Your task to perform on an android device: Go to eBay Image 0: 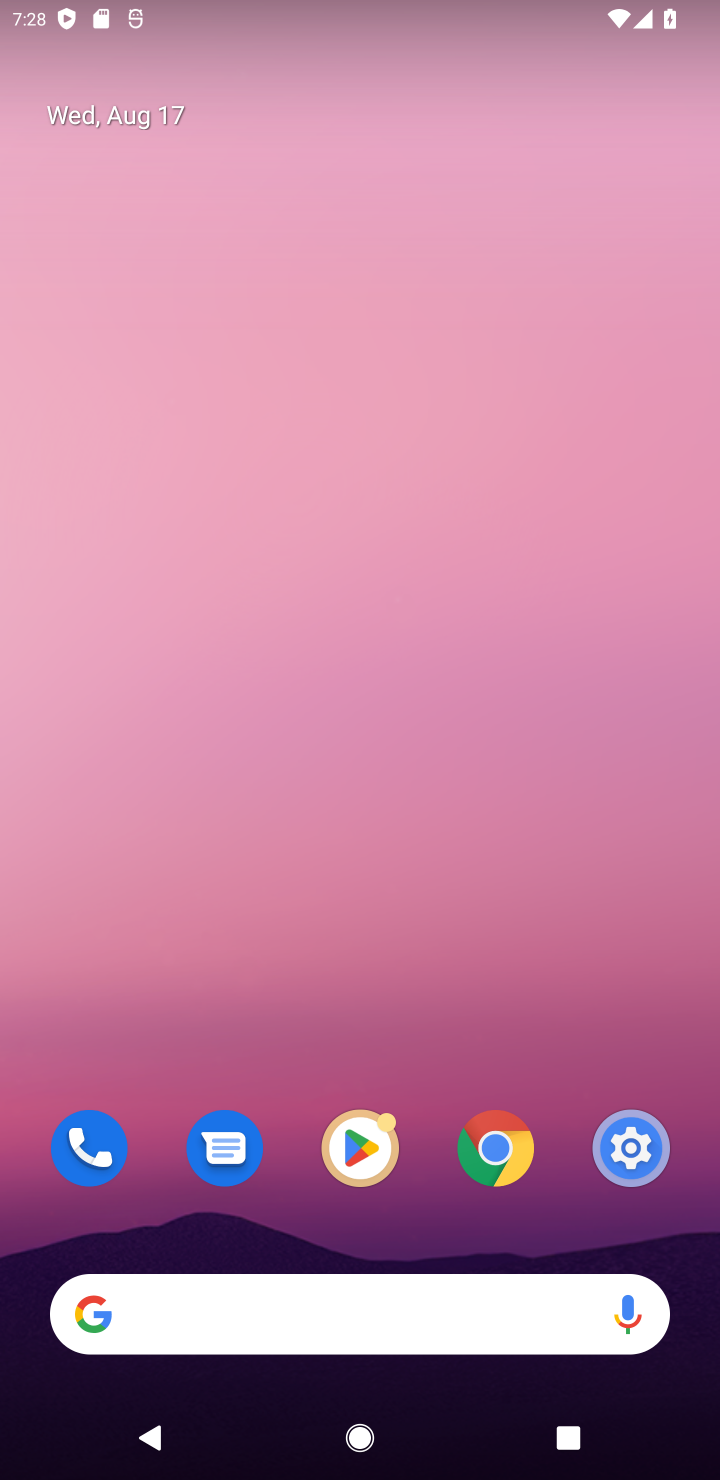
Step 0: drag from (339, 688) to (366, 417)
Your task to perform on an android device: Go to eBay Image 1: 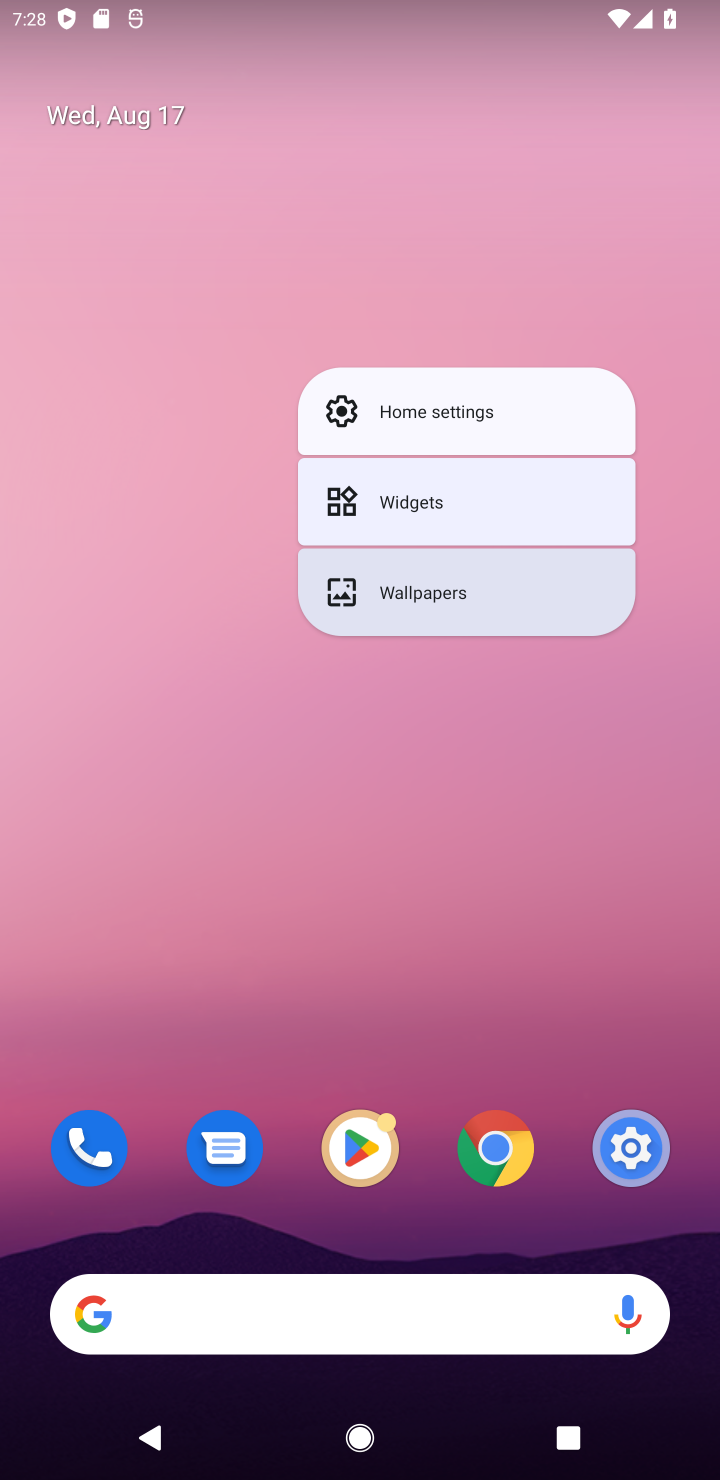
Step 1: drag from (400, 1202) to (282, 340)
Your task to perform on an android device: Go to eBay Image 2: 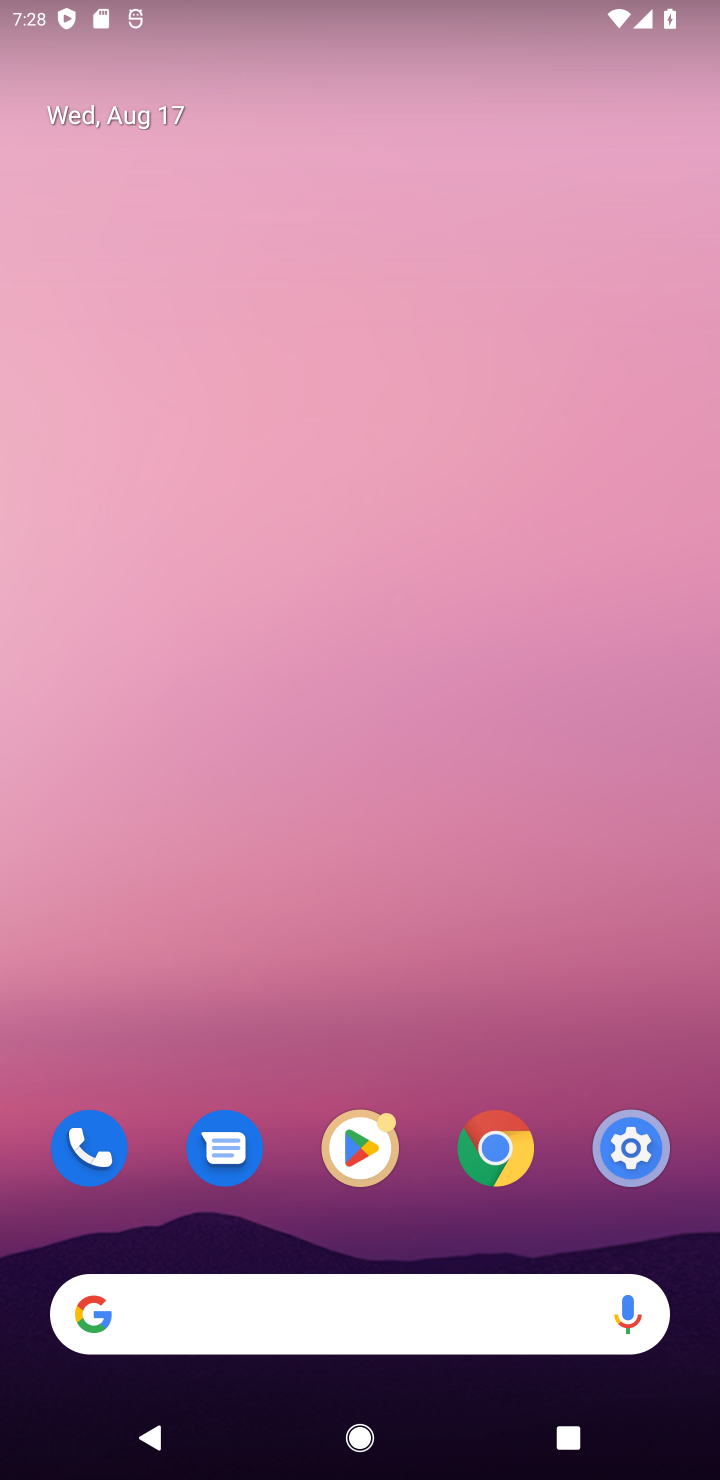
Step 2: drag from (329, 1178) to (354, 173)
Your task to perform on an android device: Go to eBay Image 3: 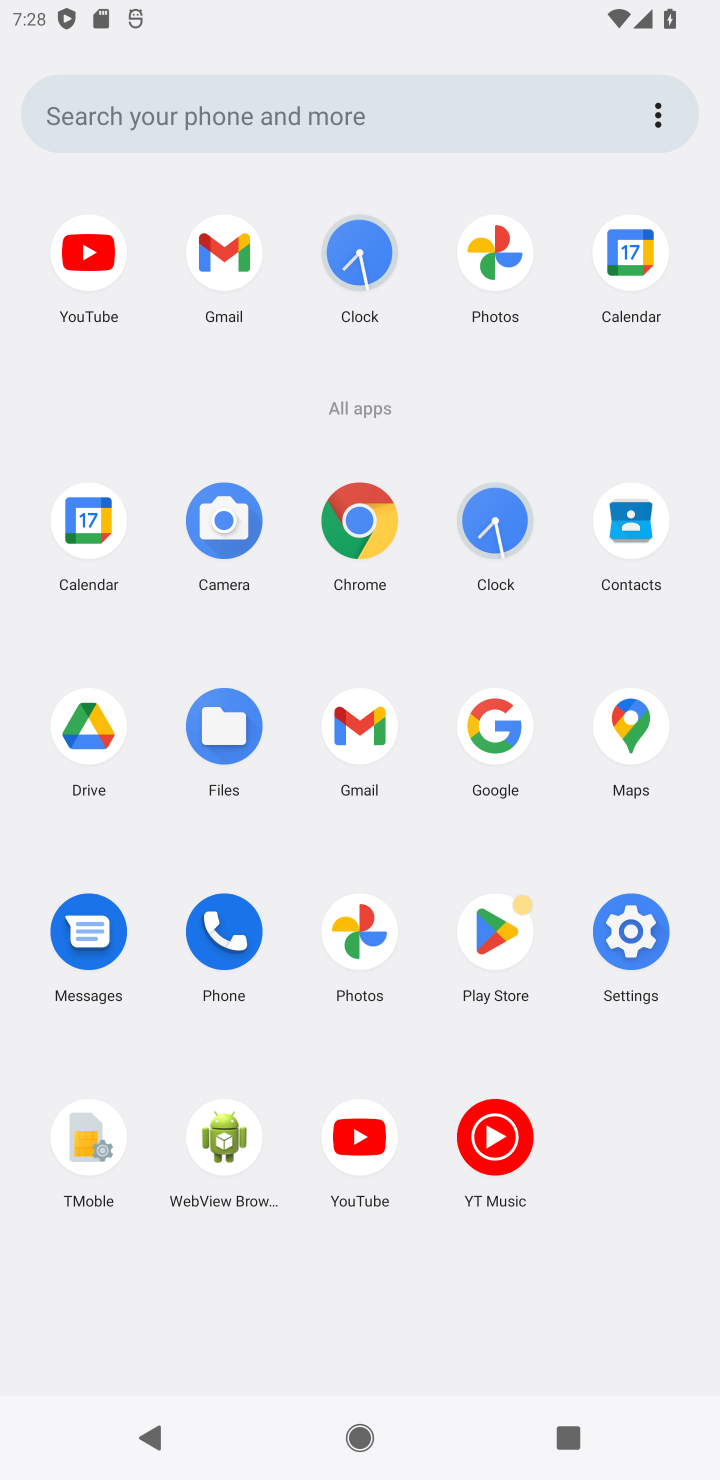
Step 3: click (496, 729)
Your task to perform on an android device: Go to eBay Image 4: 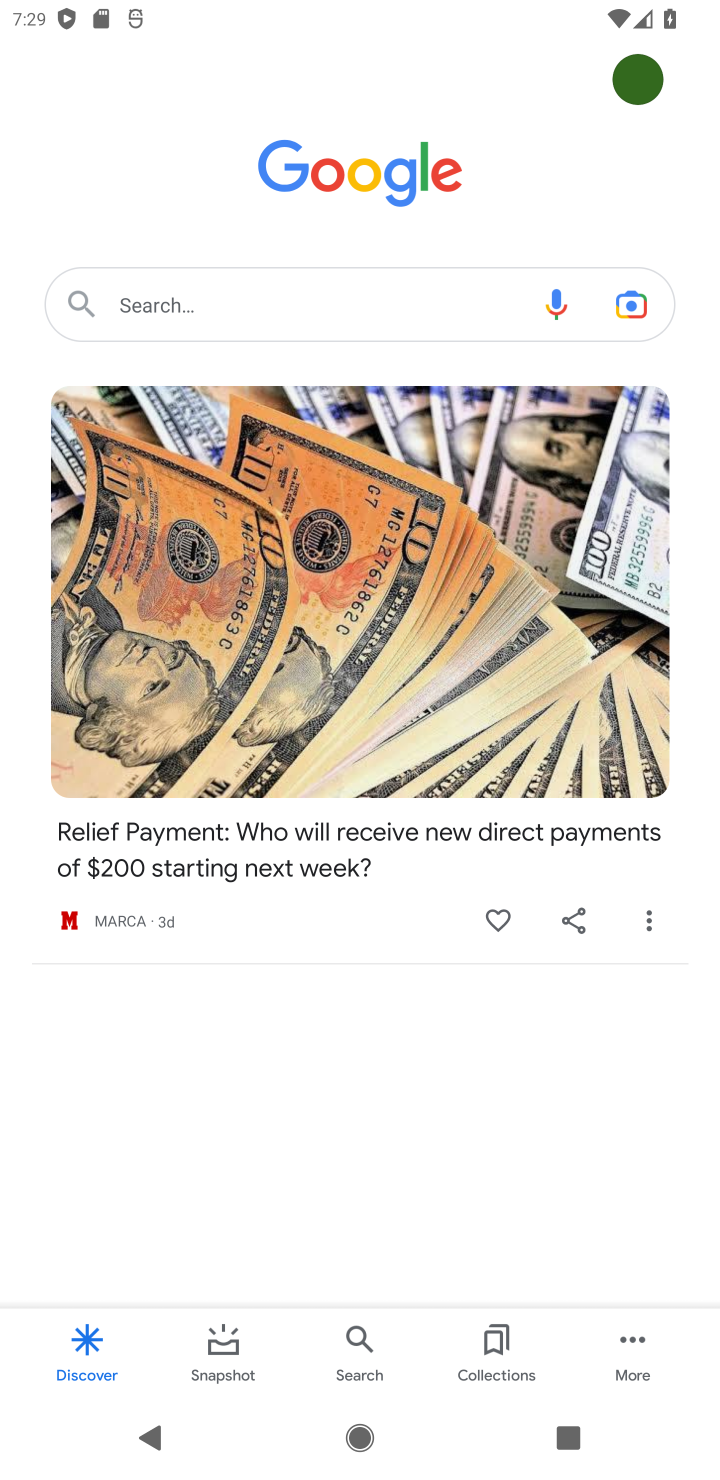
Step 4: click (261, 302)
Your task to perform on an android device: Go to eBay Image 5: 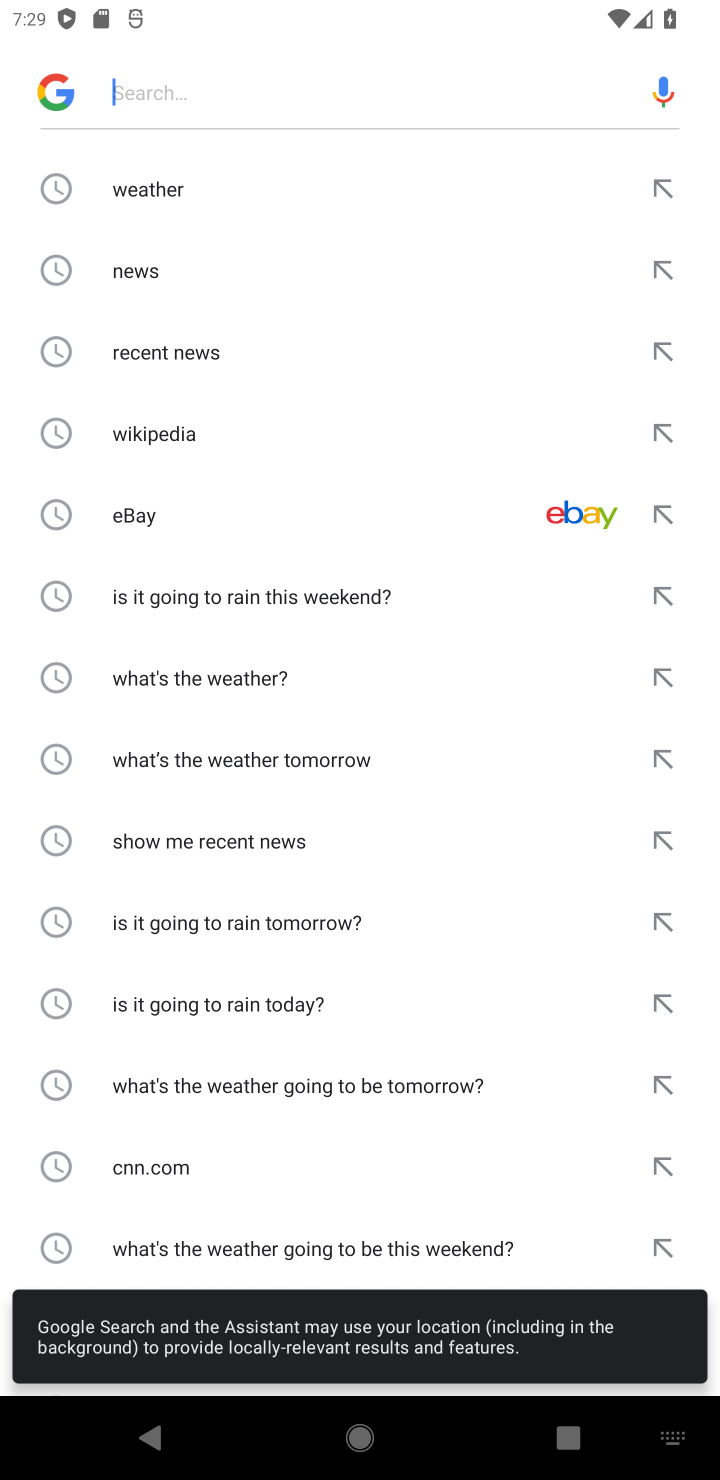
Step 5: click (144, 511)
Your task to perform on an android device: Go to eBay Image 6: 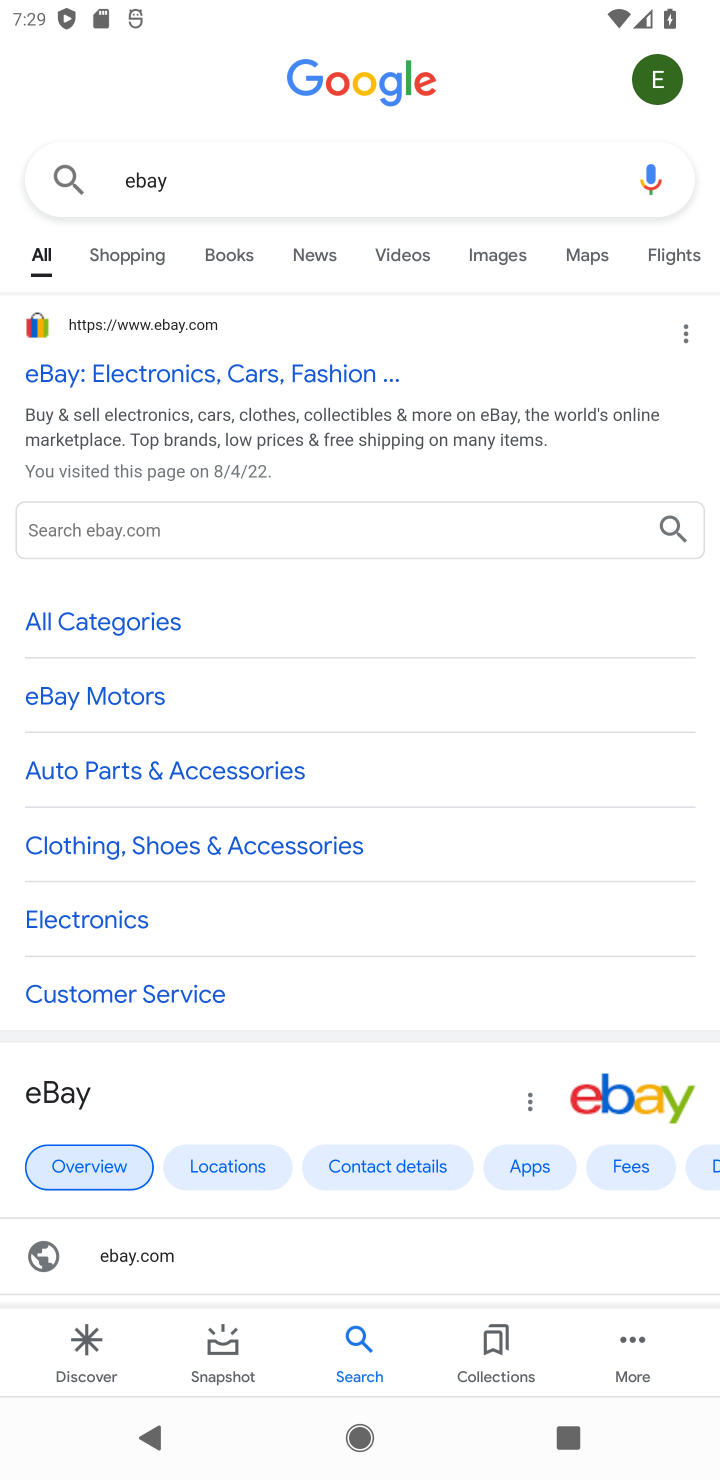
Step 6: click (290, 372)
Your task to perform on an android device: Go to eBay Image 7: 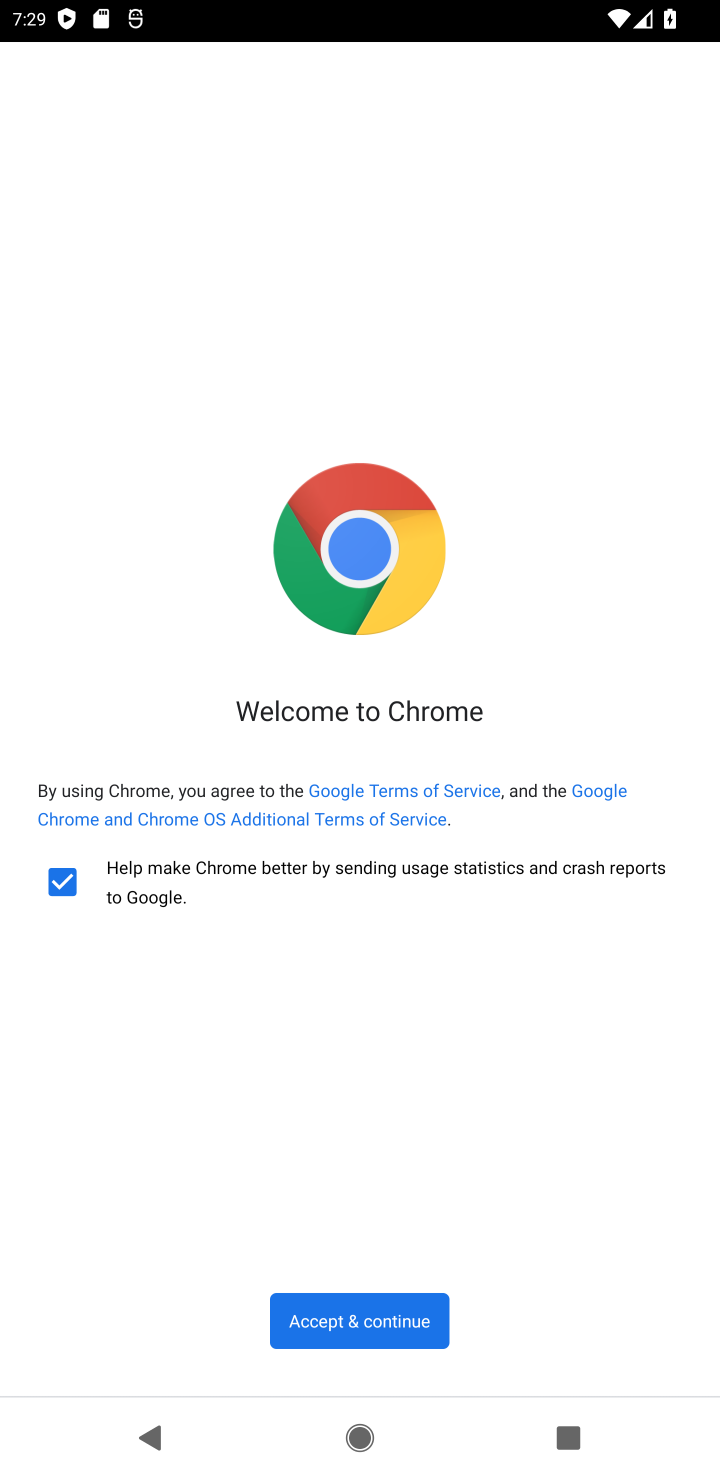
Step 7: click (328, 1319)
Your task to perform on an android device: Go to eBay Image 8: 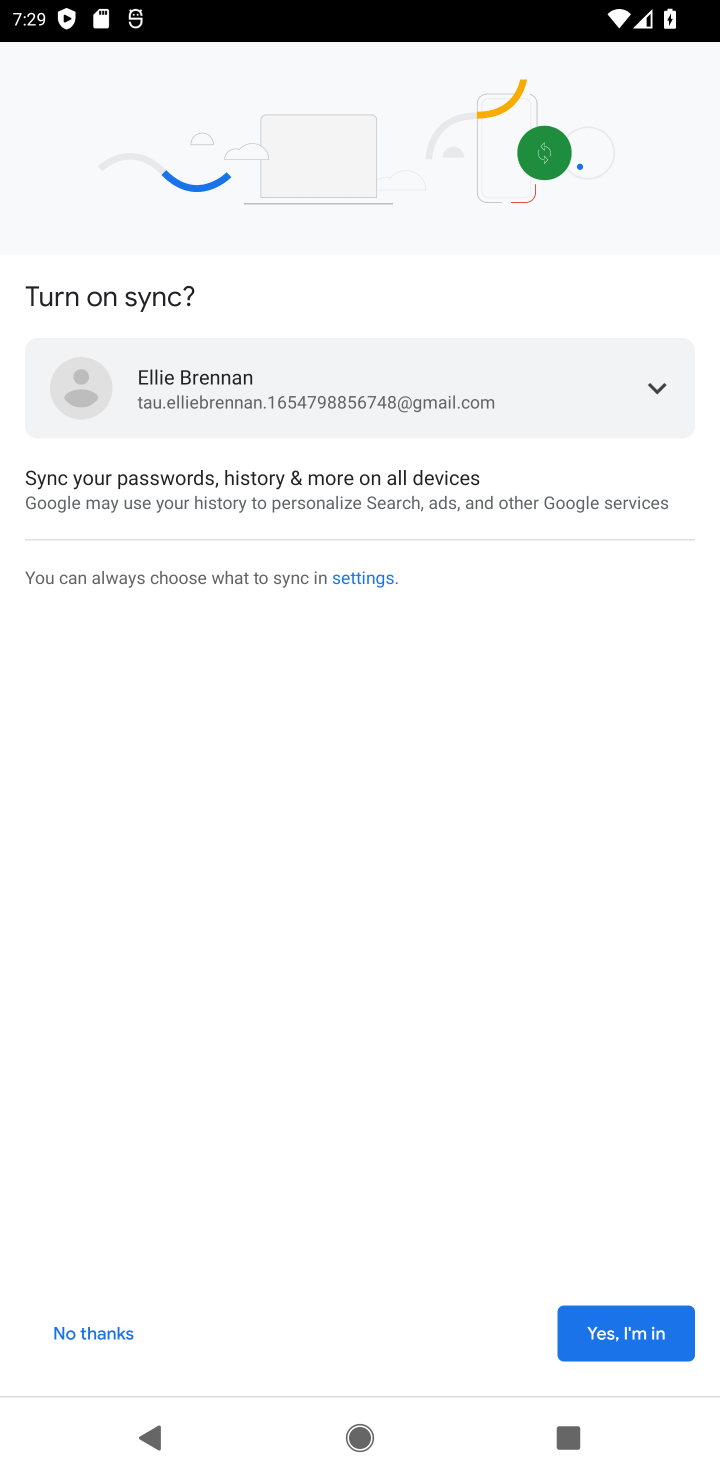
Step 8: click (587, 1327)
Your task to perform on an android device: Go to eBay Image 9: 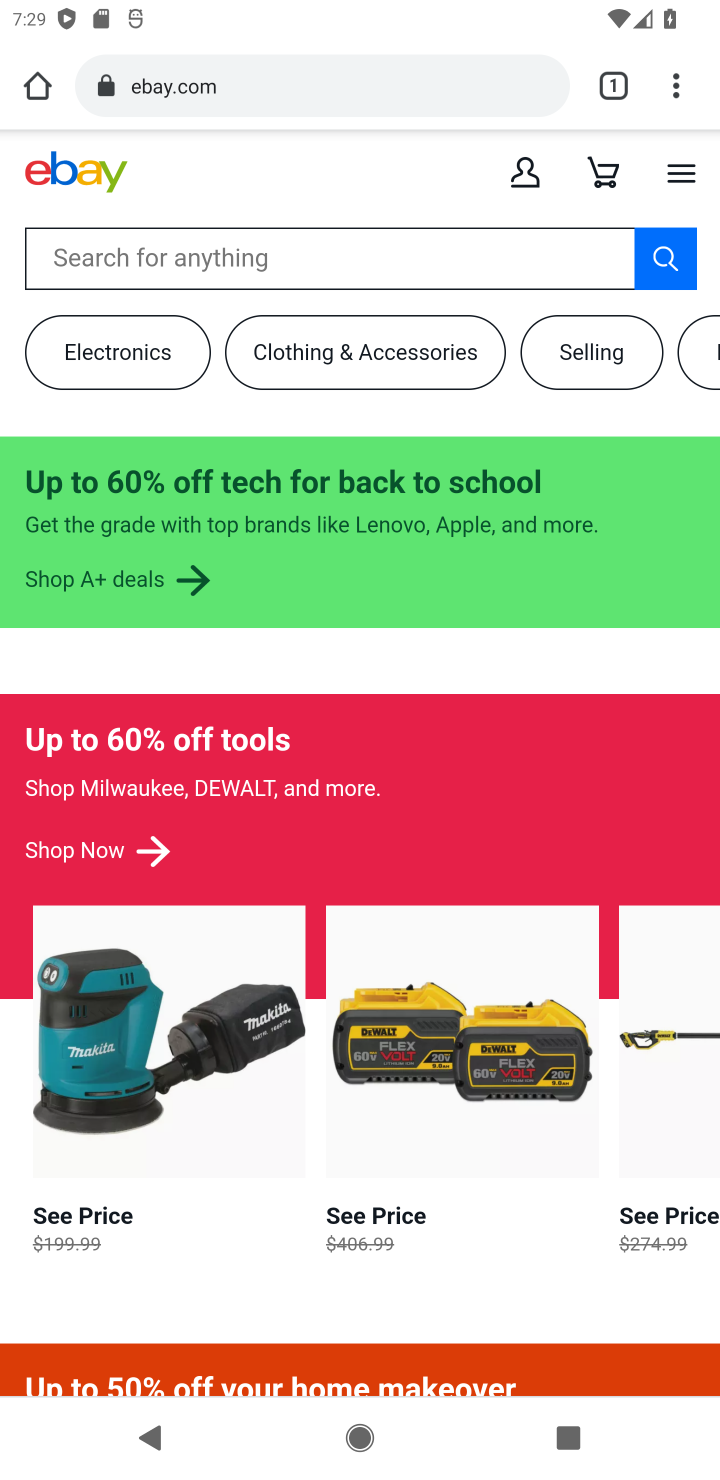
Step 9: task complete